Your task to perform on an android device: change keyboard looks Image 0: 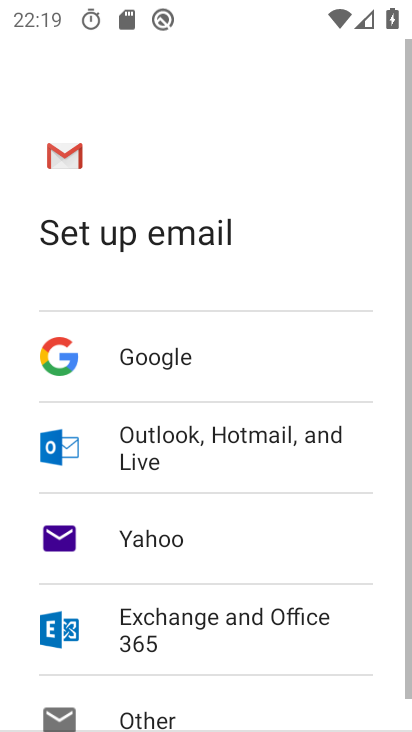
Step 0: press home button
Your task to perform on an android device: change keyboard looks Image 1: 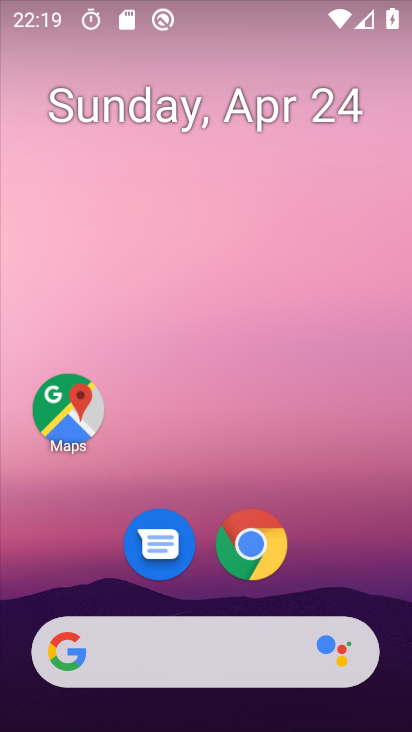
Step 1: drag from (343, 527) to (338, 212)
Your task to perform on an android device: change keyboard looks Image 2: 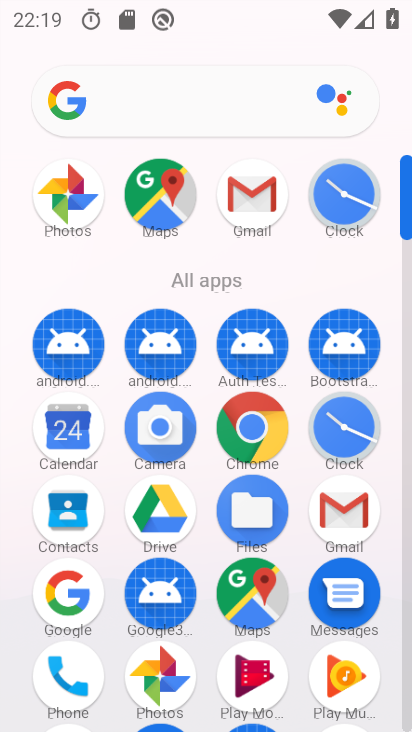
Step 2: drag from (196, 585) to (233, 146)
Your task to perform on an android device: change keyboard looks Image 3: 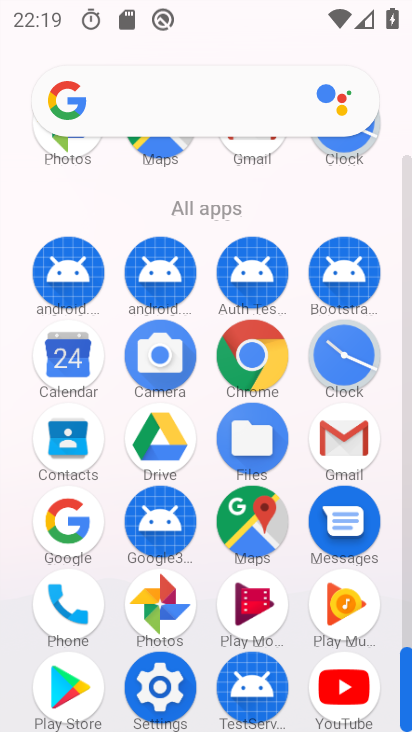
Step 3: click (151, 676)
Your task to perform on an android device: change keyboard looks Image 4: 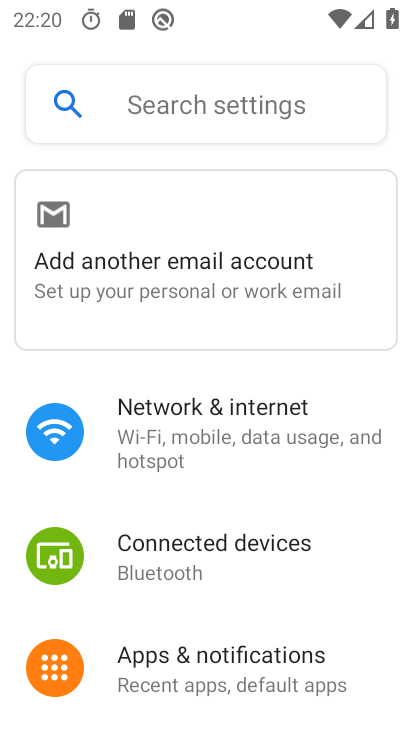
Step 4: drag from (224, 579) to (260, 86)
Your task to perform on an android device: change keyboard looks Image 5: 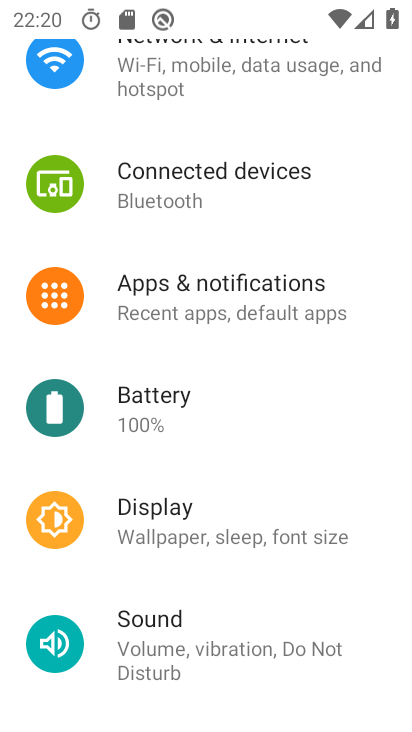
Step 5: drag from (229, 591) to (253, 77)
Your task to perform on an android device: change keyboard looks Image 6: 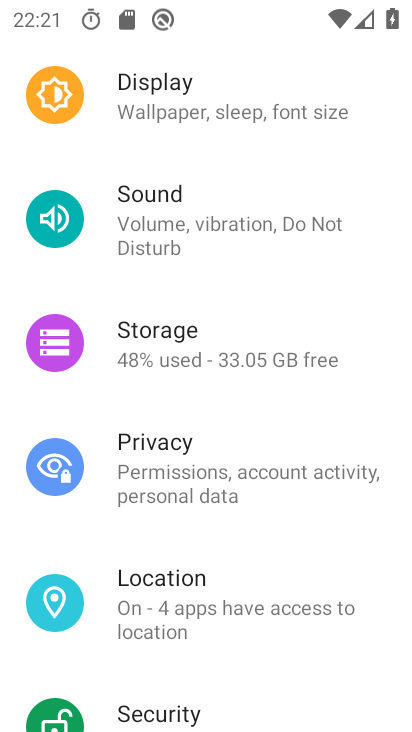
Step 6: drag from (188, 588) to (281, 137)
Your task to perform on an android device: change keyboard looks Image 7: 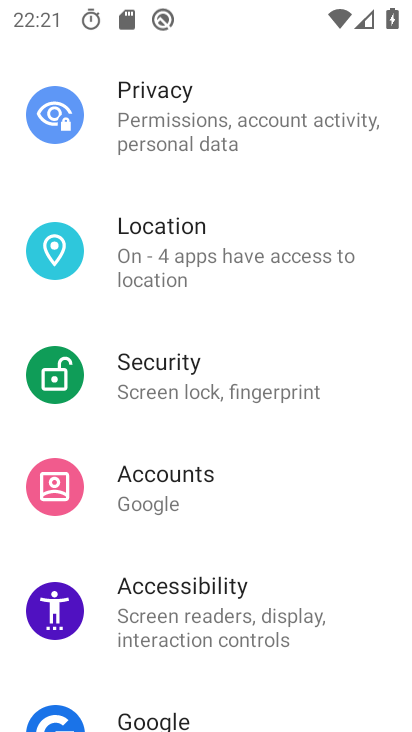
Step 7: drag from (201, 578) to (241, 308)
Your task to perform on an android device: change keyboard looks Image 8: 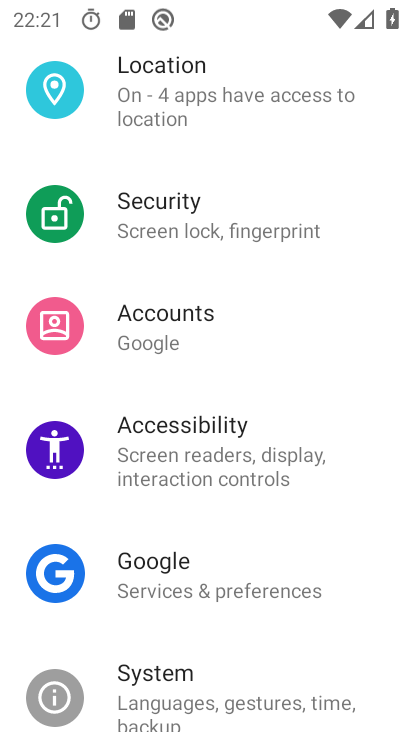
Step 8: click (154, 713)
Your task to perform on an android device: change keyboard looks Image 9: 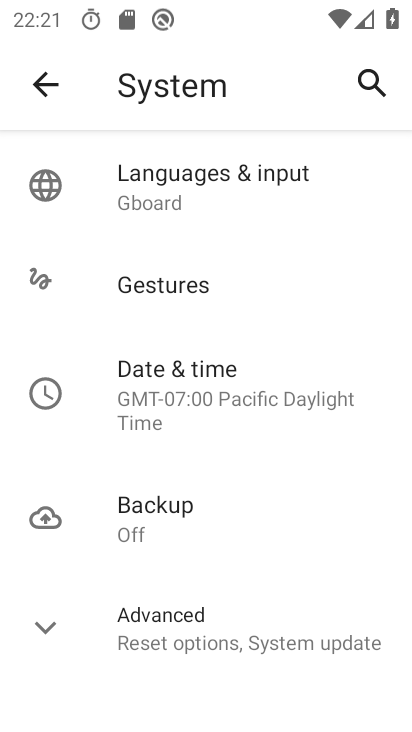
Step 9: click (177, 165)
Your task to perform on an android device: change keyboard looks Image 10: 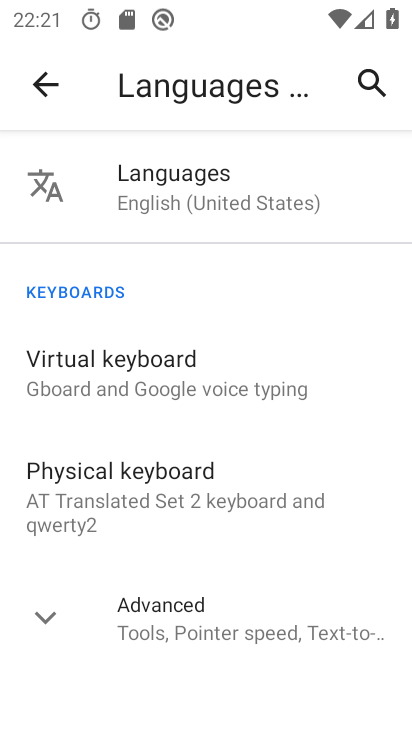
Step 10: click (144, 371)
Your task to perform on an android device: change keyboard looks Image 11: 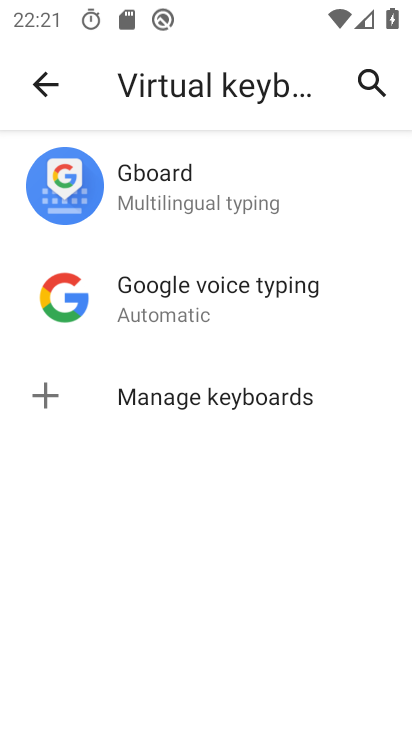
Step 11: click (179, 197)
Your task to perform on an android device: change keyboard looks Image 12: 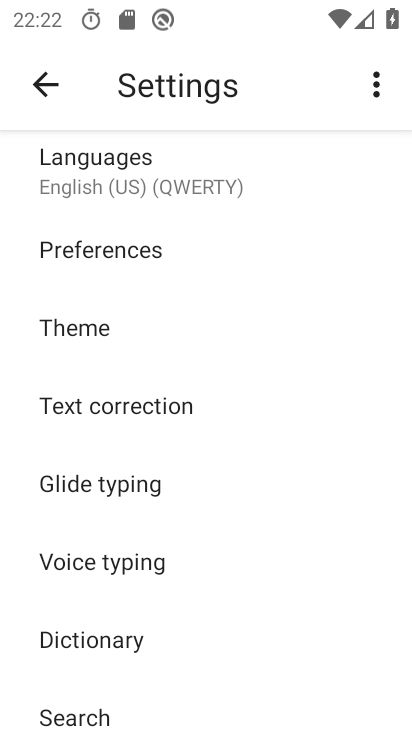
Step 12: click (137, 179)
Your task to perform on an android device: change keyboard looks Image 13: 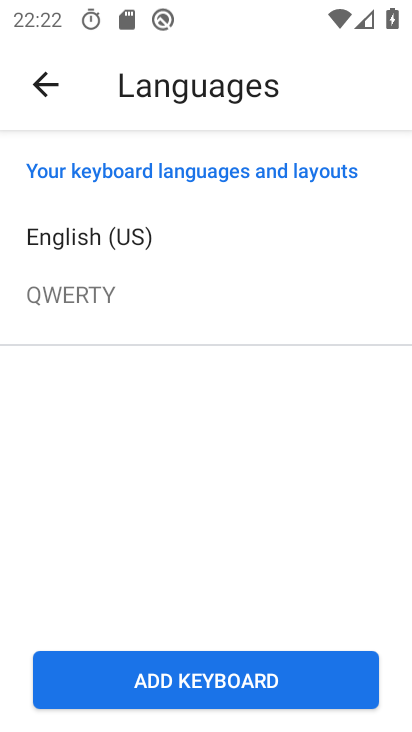
Step 13: click (34, 82)
Your task to perform on an android device: change keyboard looks Image 14: 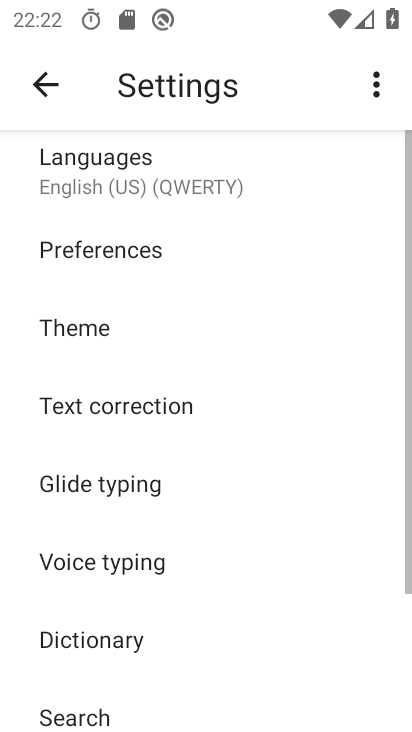
Step 14: click (102, 329)
Your task to perform on an android device: change keyboard looks Image 15: 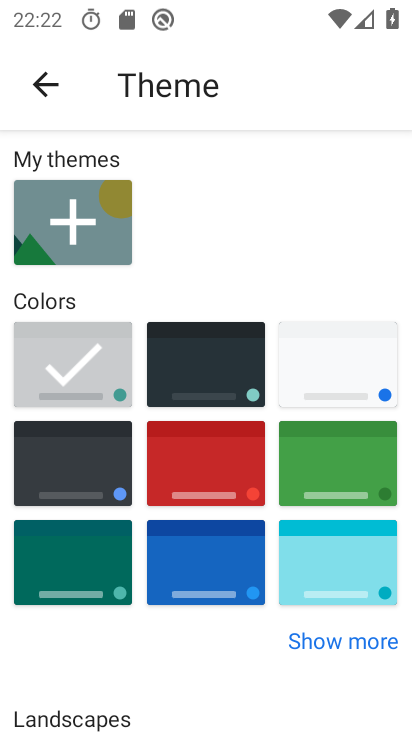
Step 15: click (174, 556)
Your task to perform on an android device: change keyboard looks Image 16: 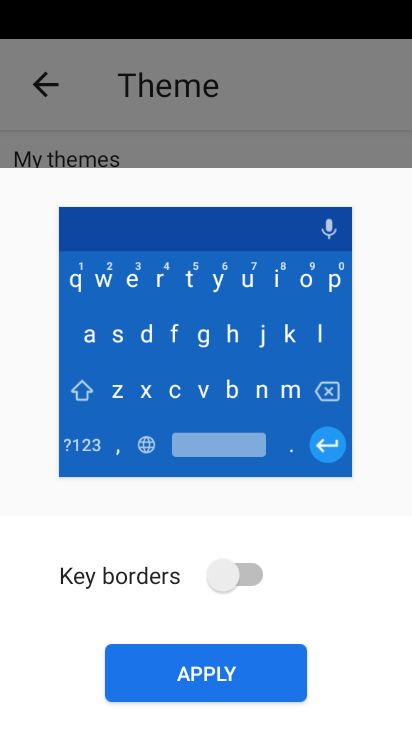
Step 16: click (246, 577)
Your task to perform on an android device: change keyboard looks Image 17: 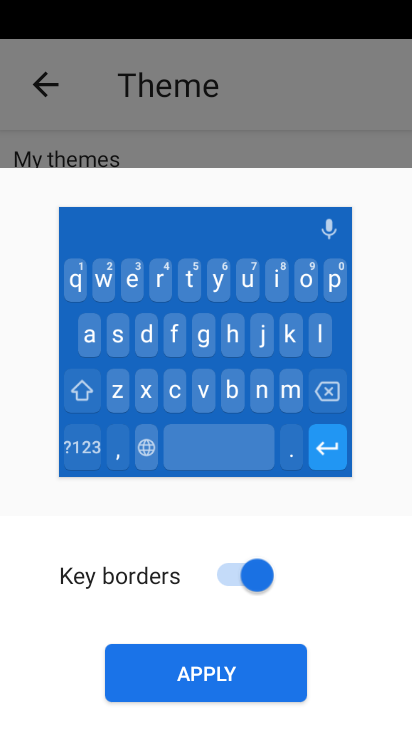
Step 17: click (208, 673)
Your task to perform on an android device: change keyboard looks Image 18: 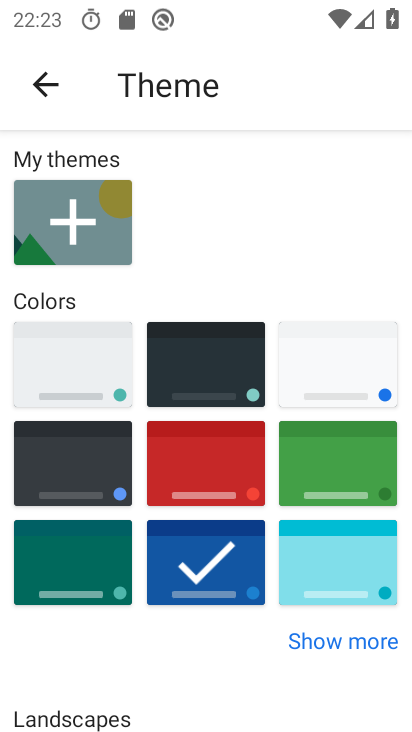
Step 18: task complete